Your task to perform on an android device: Open display settings Image 0: 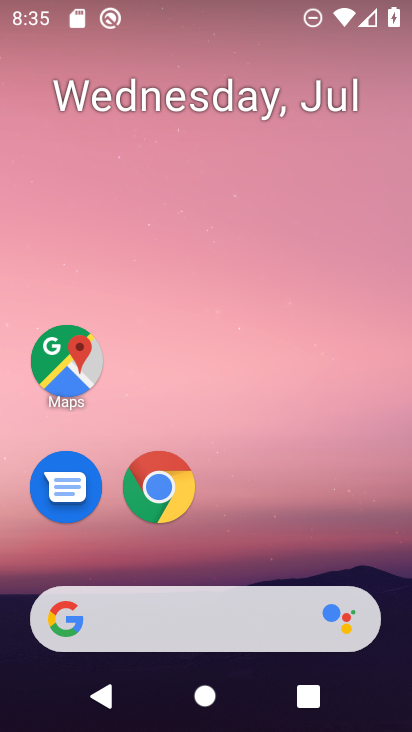
Step 0: drag from (365, 491) to (361, 116)
Your task to perform on an android device: Open display settings Image 1: 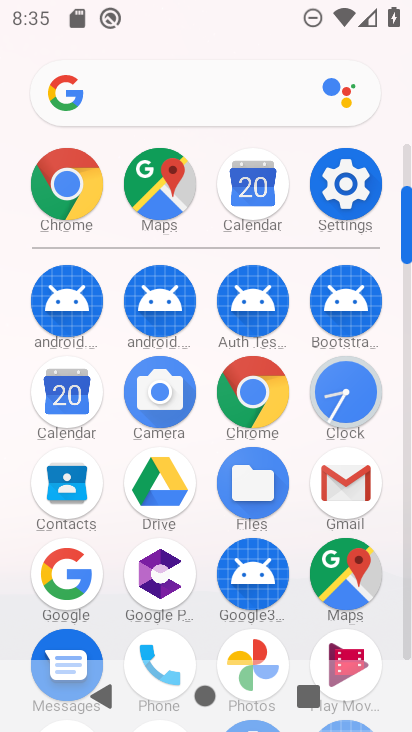
Step 1: click (358, 186)
Your task to perform on an android device: Open display settings Image 2: 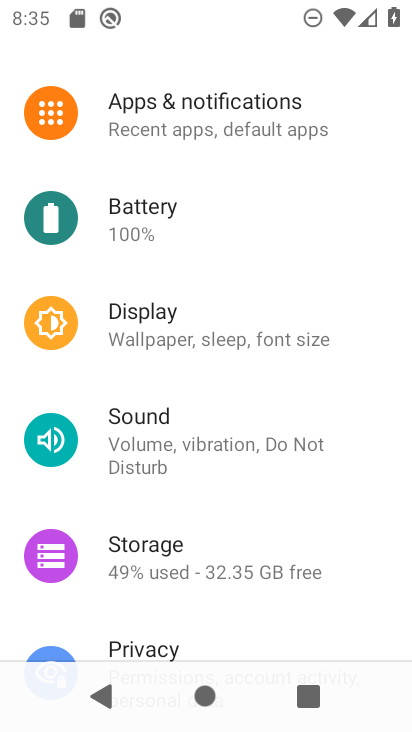
Step 2: drag from (358, 186) to (370, 273)
Your task to perform on an android device: Open display settings Image 3: 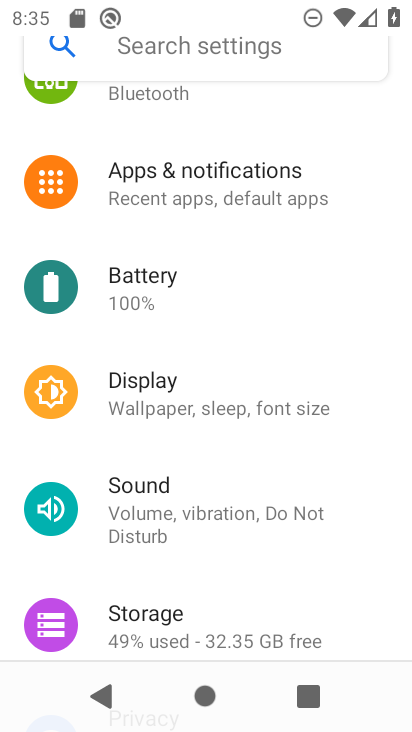
Step 3: drag from (362, 164) to (356, 312)
Your task to perform on an android device: Open display settings Image 4: 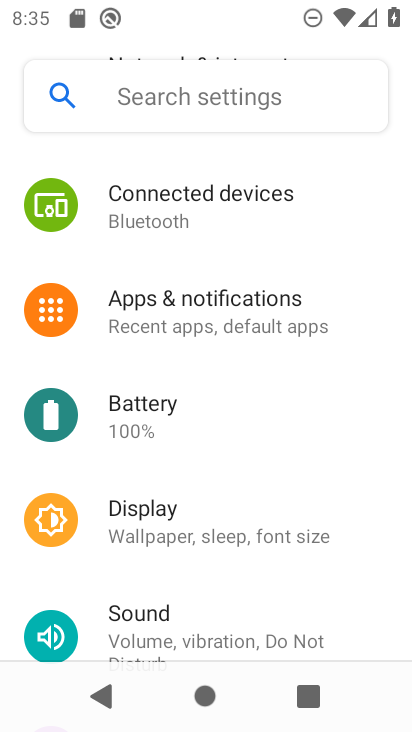
Step 4: drag from (363, 186) to (377, 348)
Your task to perform on an android device: Open display settings Image 5: 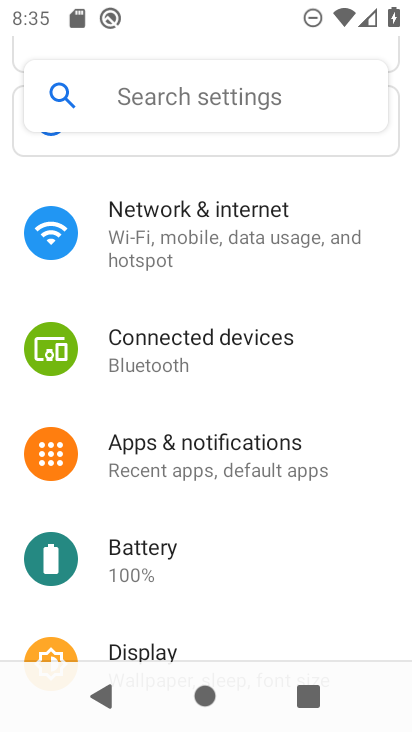
Step 5: drag from (363, 173) to (382, 335)
Your task to perform on an android device: Open display settings Image 6: 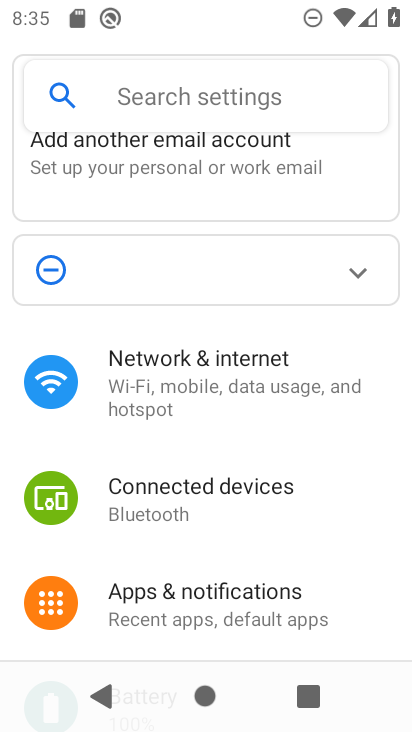
Step 6: drag from (363, 492) to (364, 412)
Your task to perform on an android device: Open display settings Image 7: 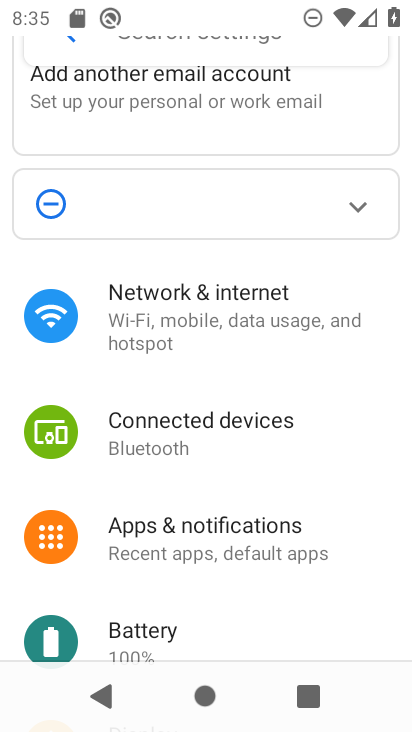
Step 7: drag from (353, 472) to (344, 404)
Your task to perform on an android device: Open display settings Image 8: 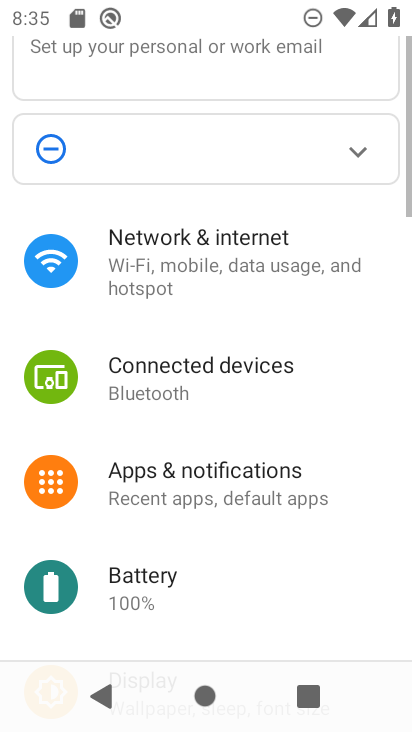
Step 8: drag from (340, 461) to (345, 402)
Your task to perform on an android device: Open display settings Image 9: 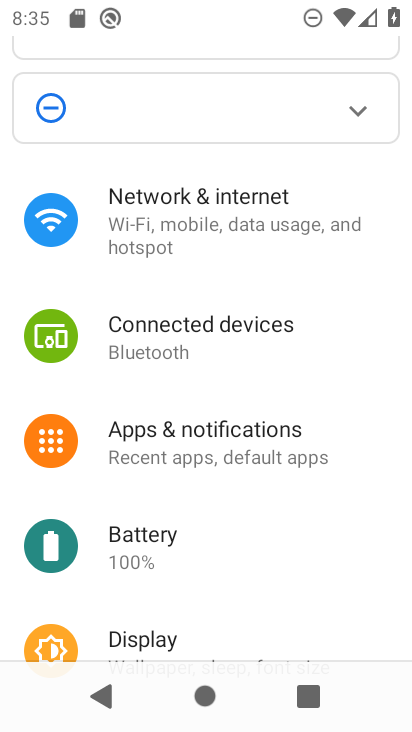
Step 9: drag from (339, 493) to (343, 404)
Your task to perform on an android device: Open display settings Image 10: 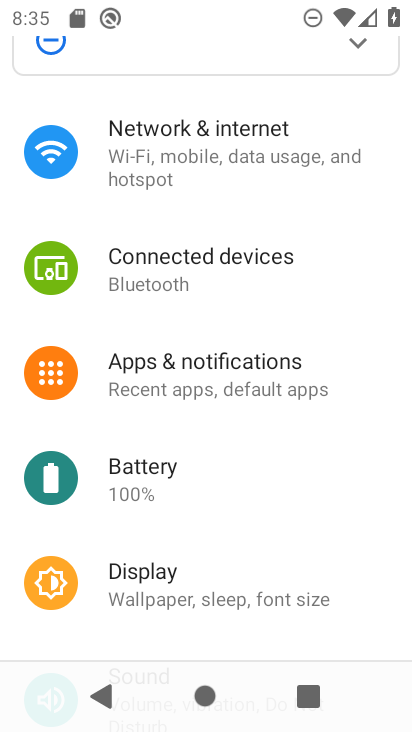
Step 10: drag from (346, 499) to (350, 360)
Your task to perform on an android device: Open display settings Image 11: 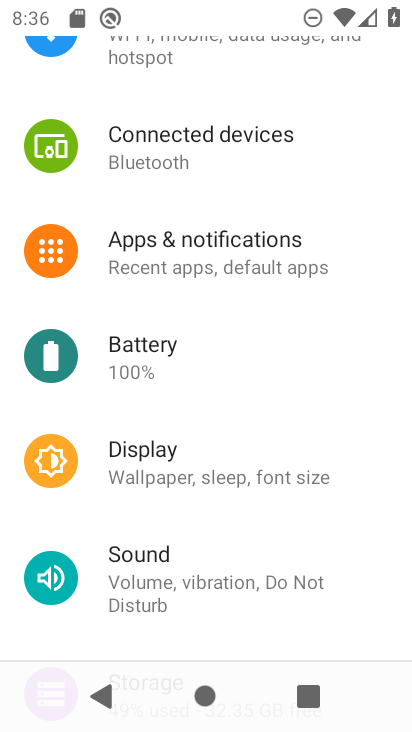
Step 11: drag from (353, 520) to (342, 408)
Your task to perform on an android device: Open display settings Image 12: 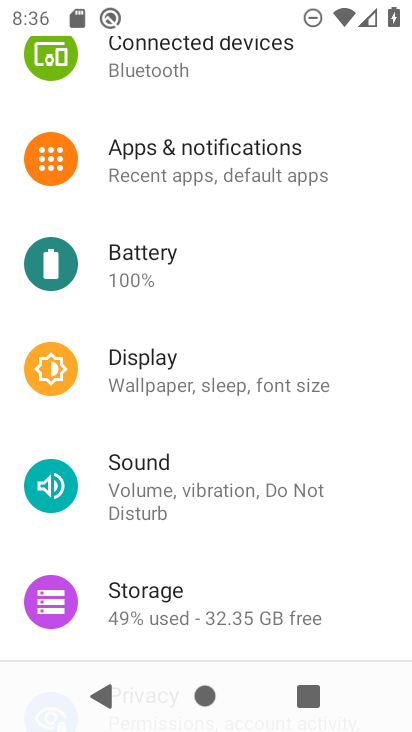
Step 12: click (320, 391)
Your task to perform on an android device: Open display settings Image 13: 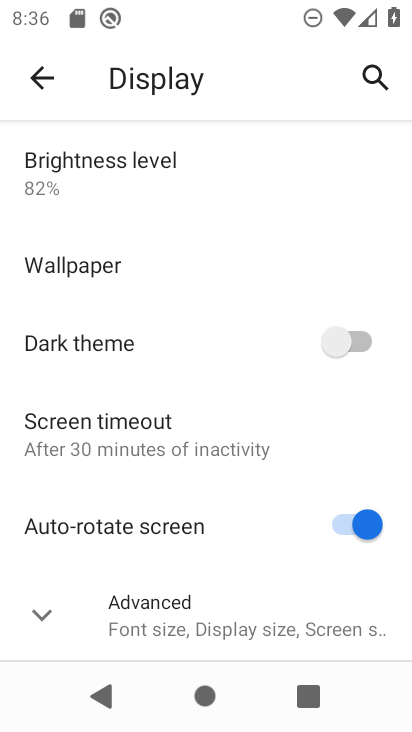
Step 13: click (254, 613)
Your task to perform on an android device: Open display settings Image 14: 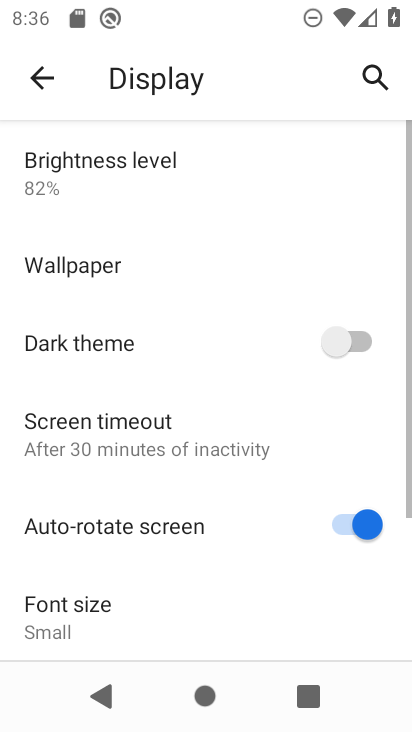
Step 14: task complete